Your task to perform on an android device: Check the weather Image 0: 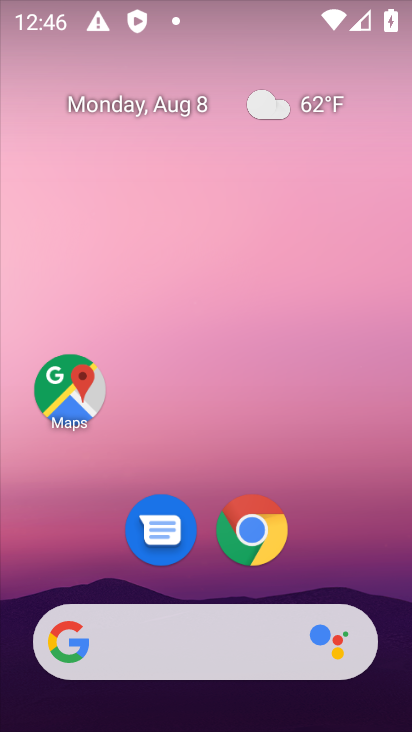
Step 0: click (273, 102)
Your task to perform on an android device: Check the weather Image 1: 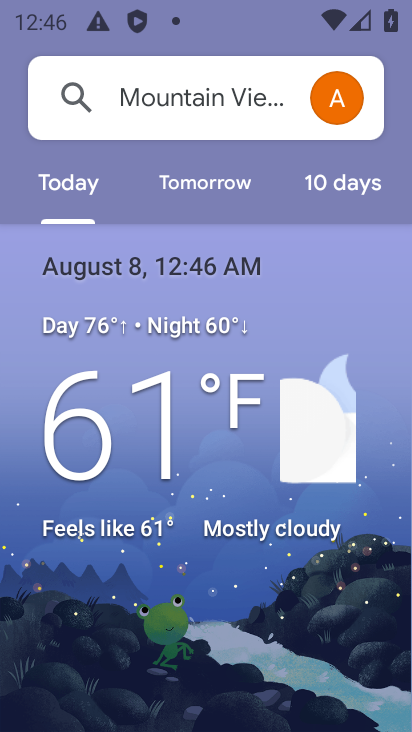
Step 1: task complete